Your task to perform on an android device: change the upload size in google photos Image 0: 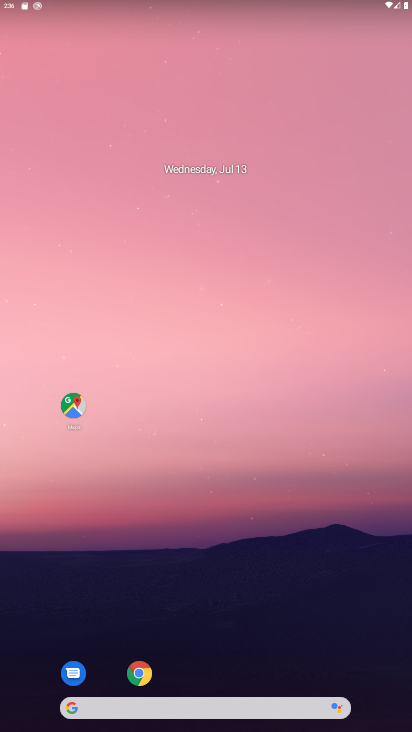
Step 0: drag from (233, 697) to (321, 186)
Your task to perform on an android device: change the upload size in google photos Image 1: 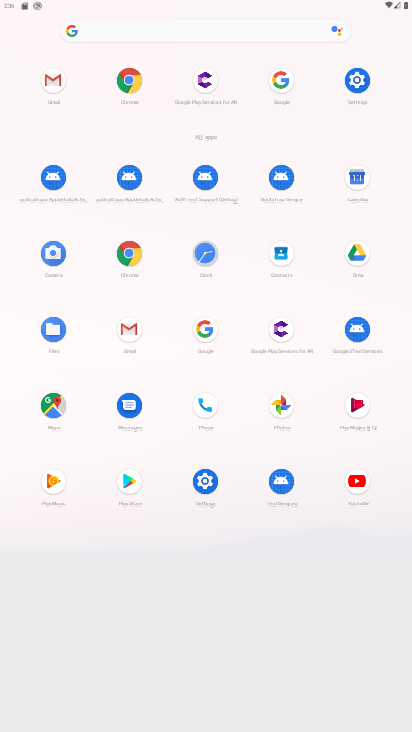
Step 1: click (294, 405)
Your task to perform on an android device: change the upload size in google photos Image 2: 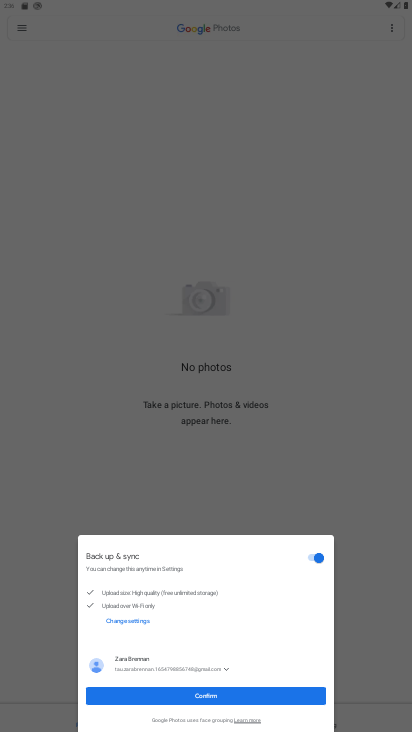
Step 2: click (225, 695)
Your task to perform on an android device: change the upload size in google photos Image 3: 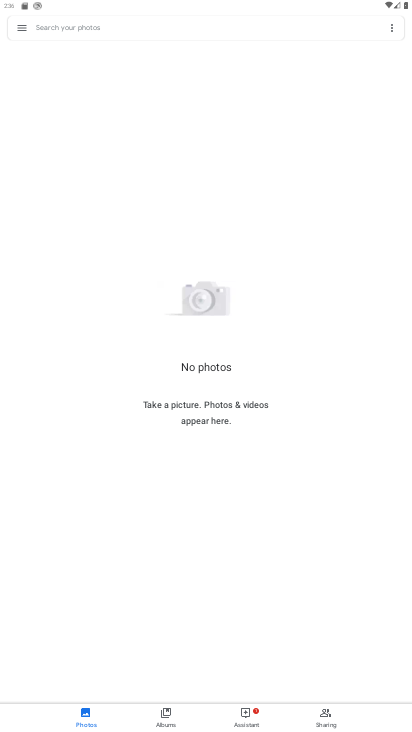
Step 3: click (29, 37)
Your task to perform on an android device: change the upload size in google photos Image 4: 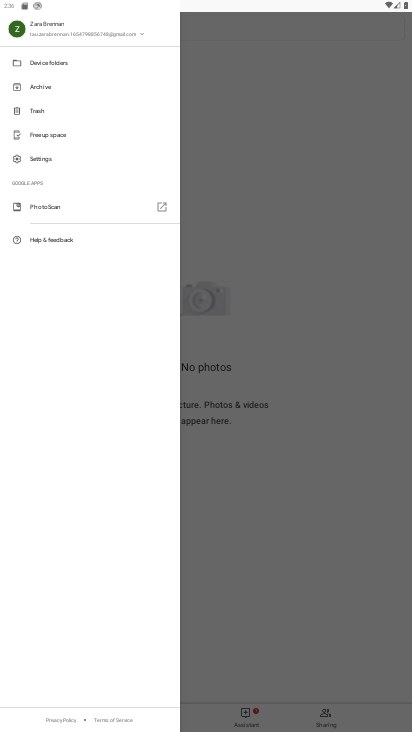
Step 4: click (73, 167)
Your task to perform on an android device: change the upload size in google photos Image 5: 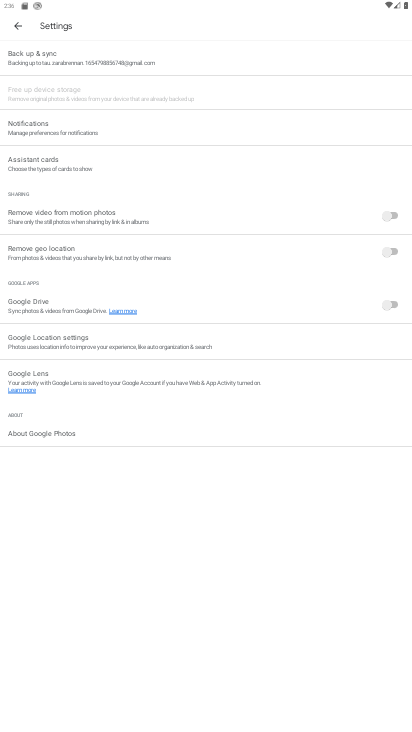
Step 5: click (110, 63)
Your task to perform on an android device: change the upload size in google photos Image 6: 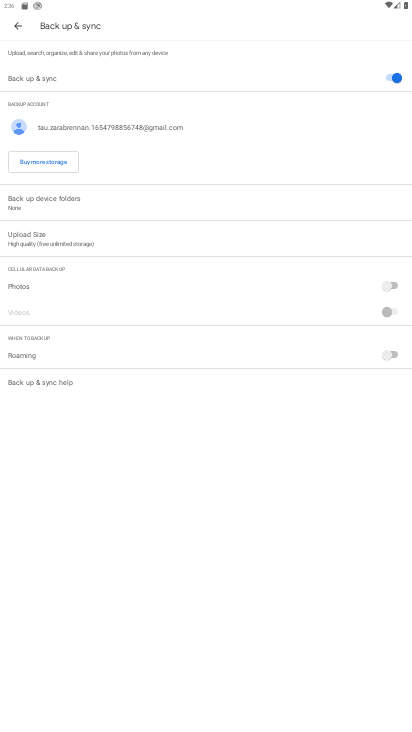
Step 6: click (79, 250)
Your task to perform on an android device: change the upload size in google photos Image 7: 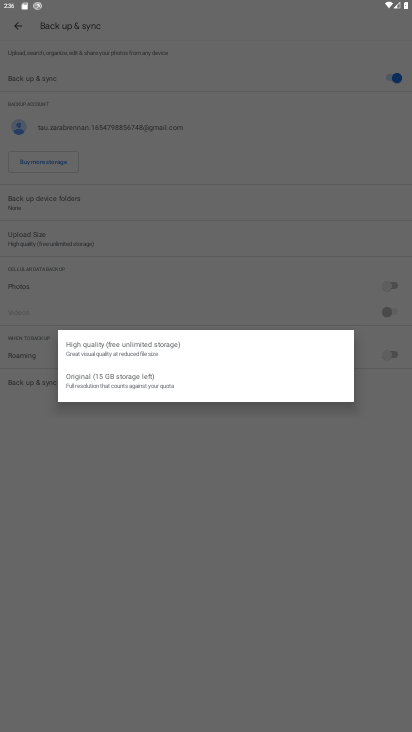
Step 7: click (183, 381)
Your task to perform on an android device: change the upload size in google photos Image 8: 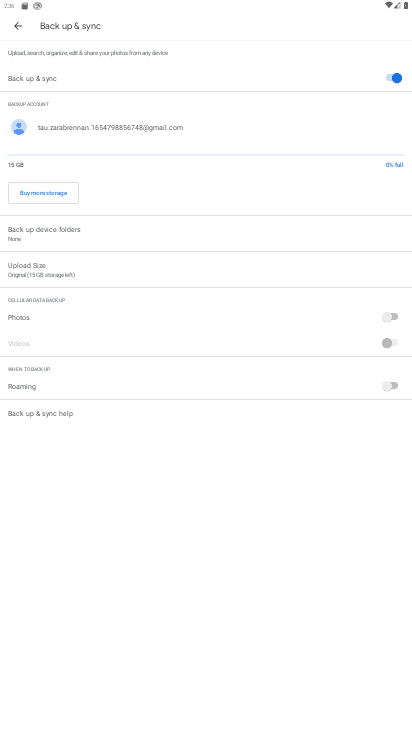
Step 8: task complete